Your task to perform on an android device: Go to location settings Image 0: 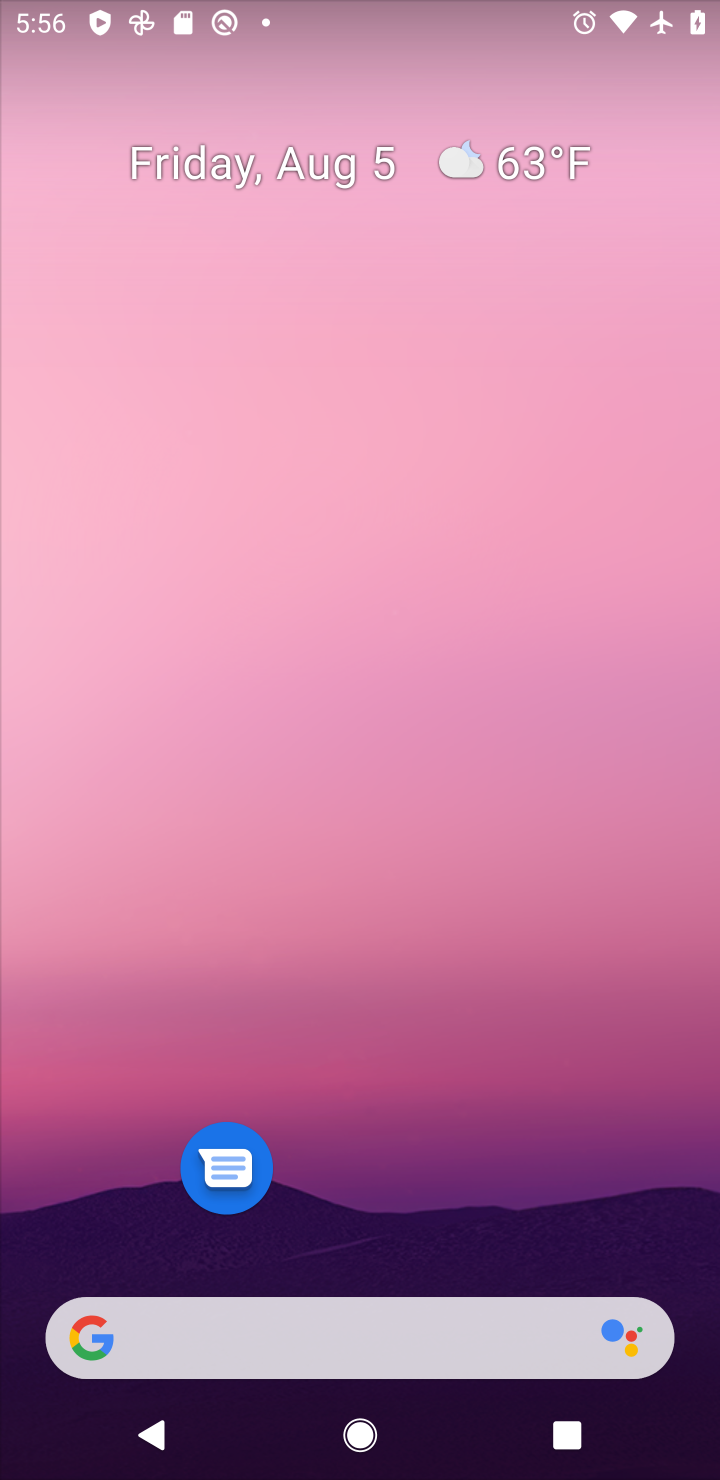
Step 0: drag from (333, 474) to (332, 118)
Your task to perform on an android device: Go to location settings Image 1: 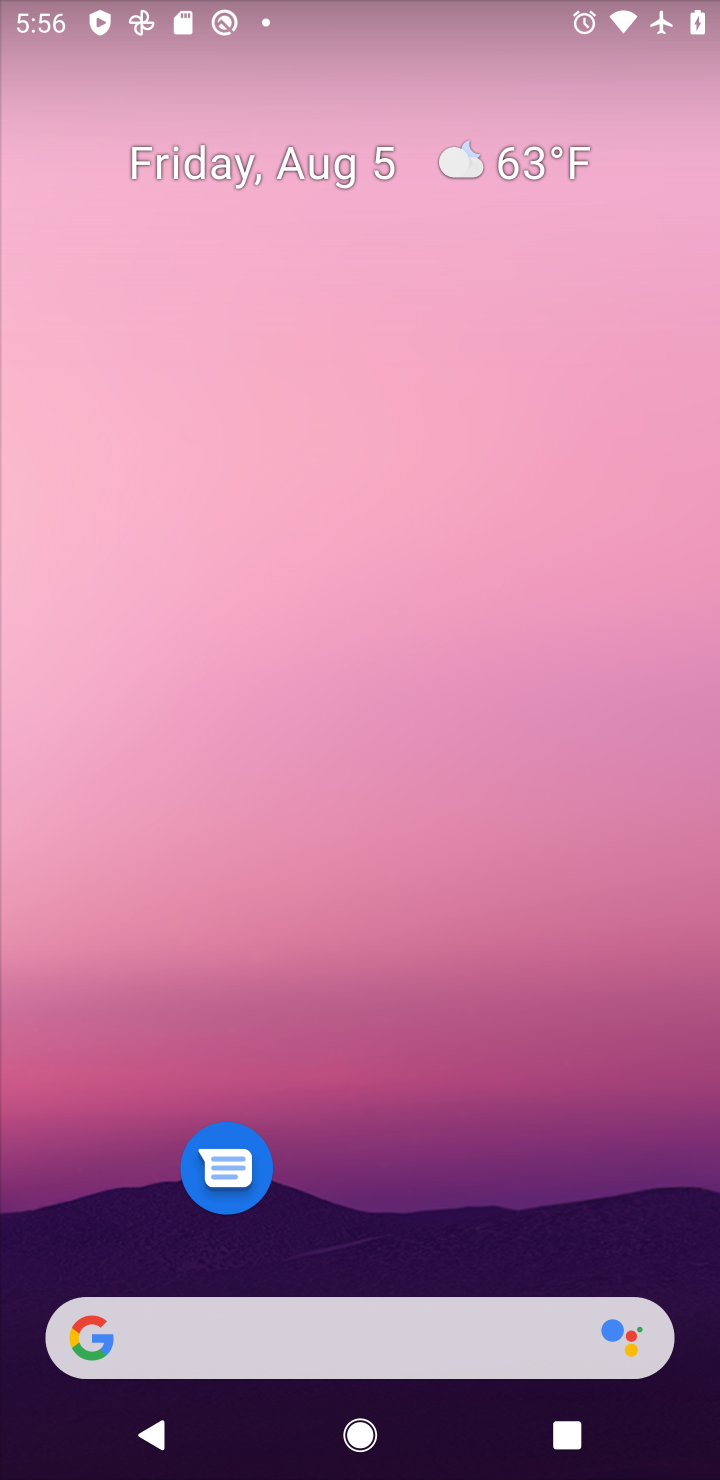
Step 1: drag from (495, 1249) to (391, 91)
Your task to perform on an android device: Go to location settings Image 2: 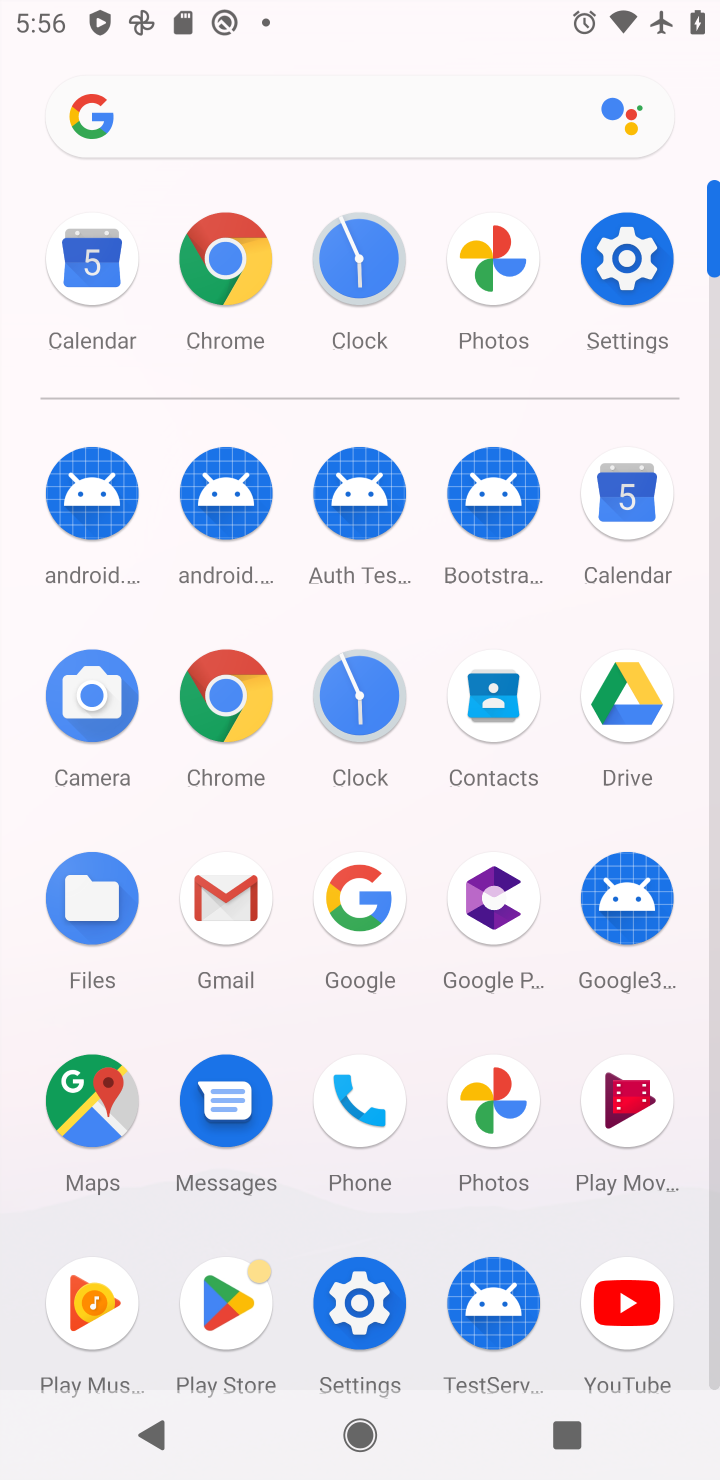
Step 2: click (635, 262)
Your task to perform on an android device: Go to location settings Image 3: 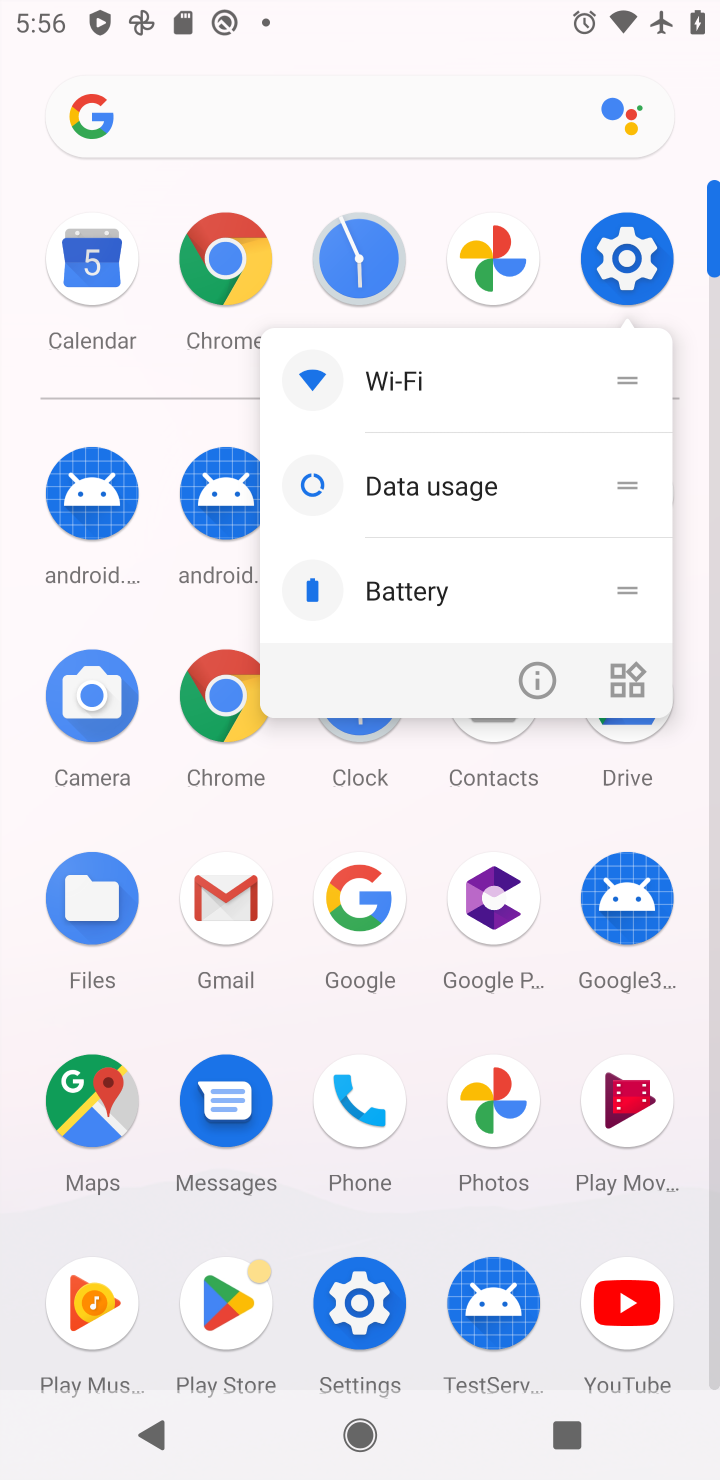
Step 3: click (569, 236)
Your task to perform on an android device: Go to location settings Image 4: 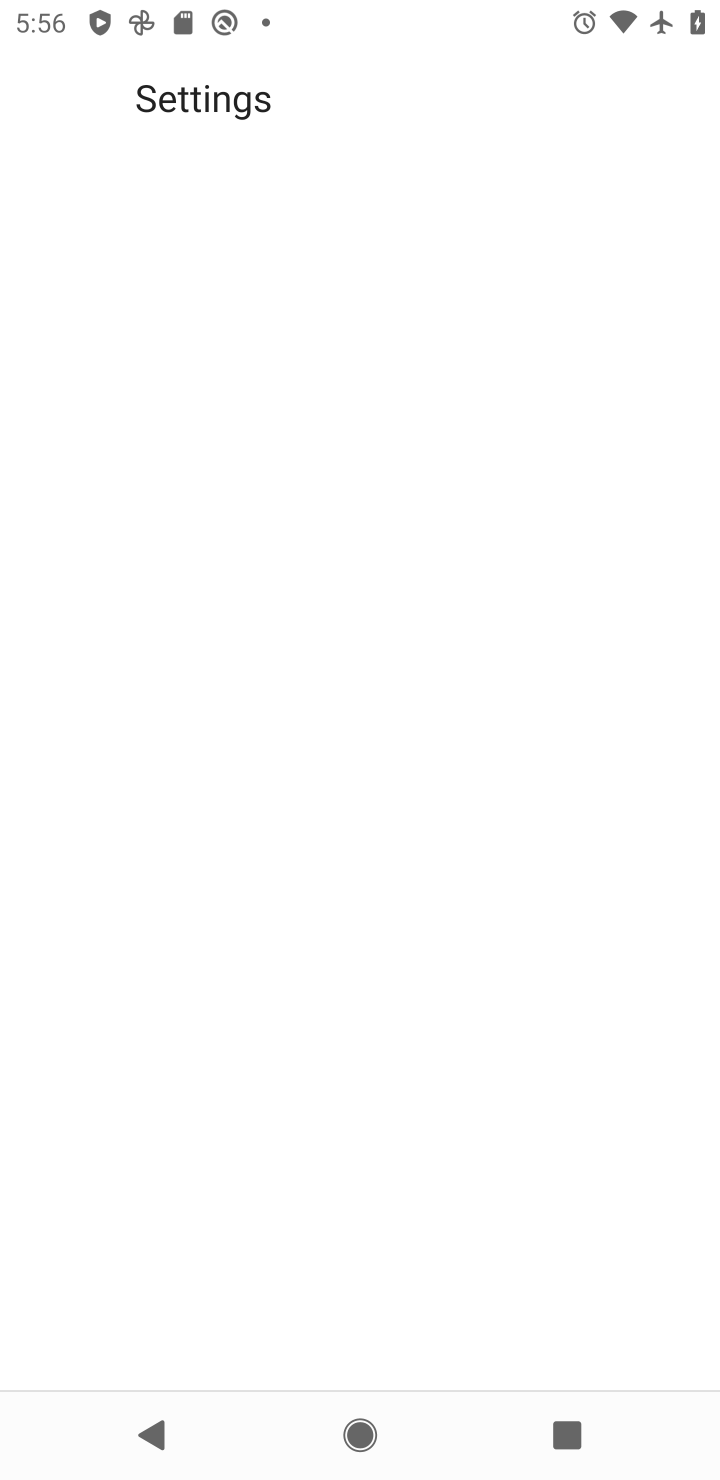
Step 4: click (640, 282)
Your task to perform on an android device: Go to location settings Image 5: 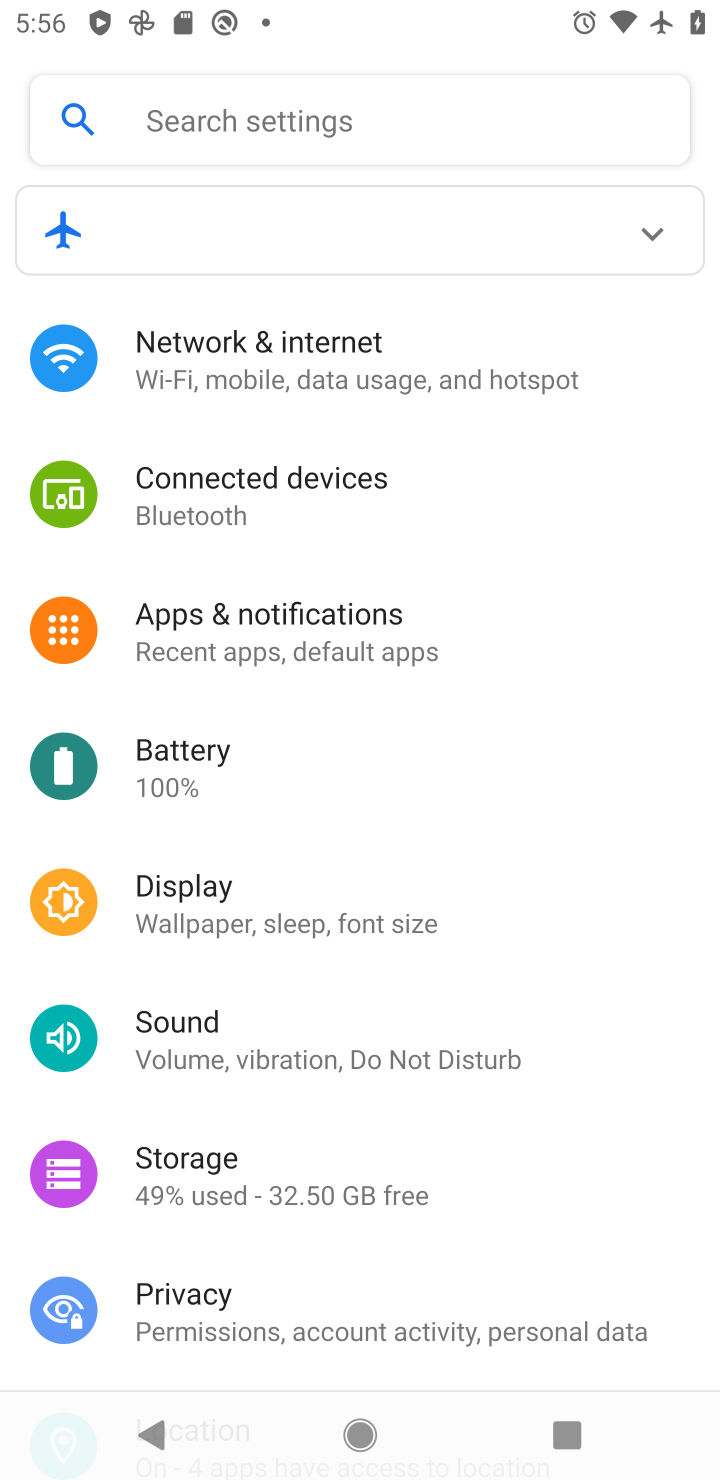
Step 5: drag from (532, 611) to (367, 35)
Your task to perform on an android device: Go to location settings Image 6: 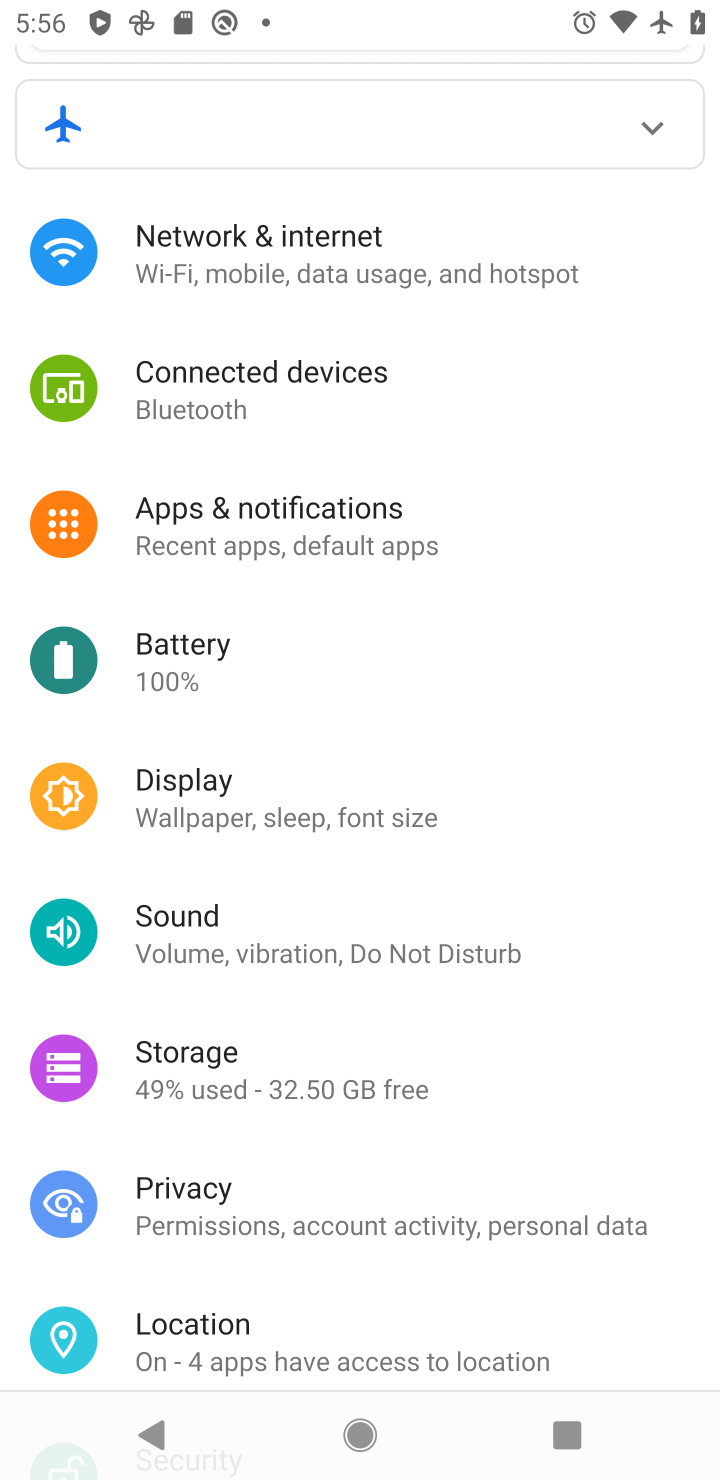
Step 6: click (175, 1333)
Your task to perform on an android device: Go to location settings Image 7: 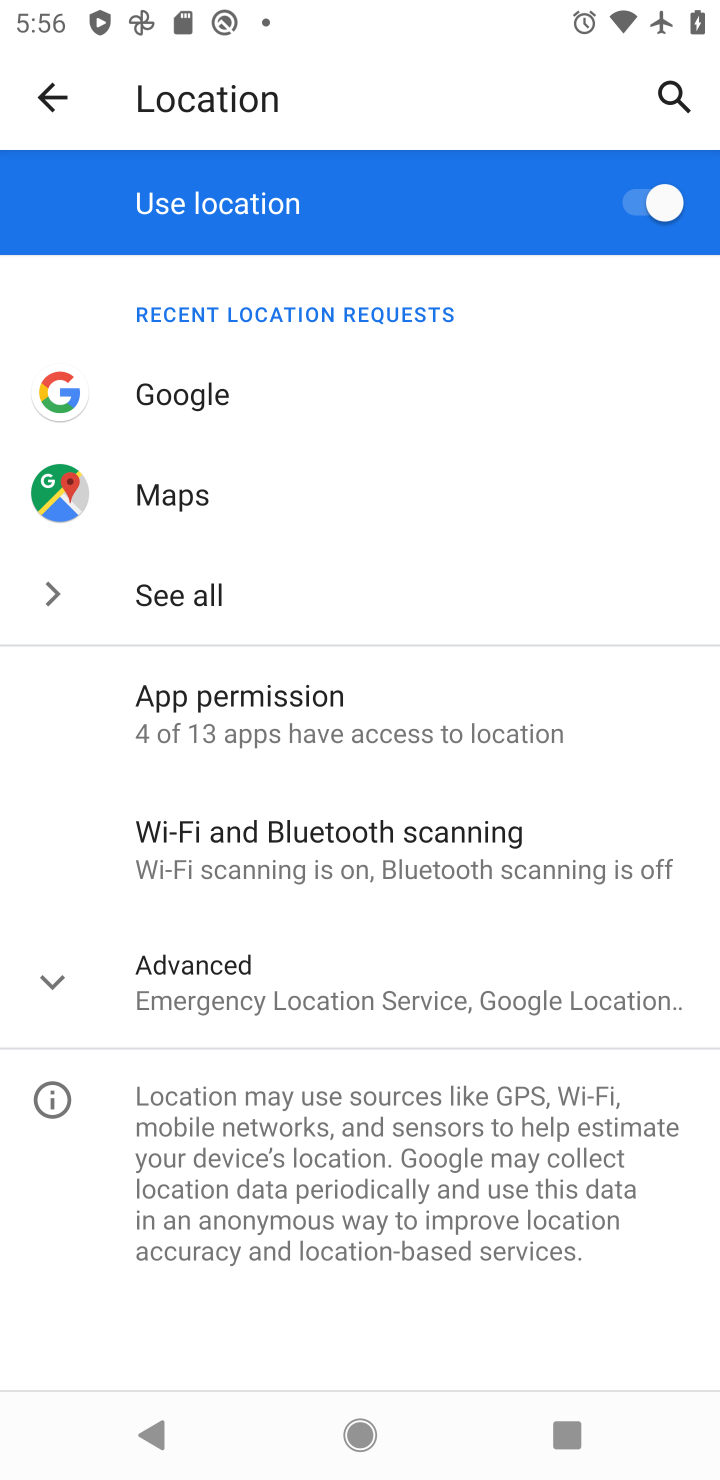
Step 7: task complete